Your task to perform on an android device: Open Chrome and go to the settings page Image 0: 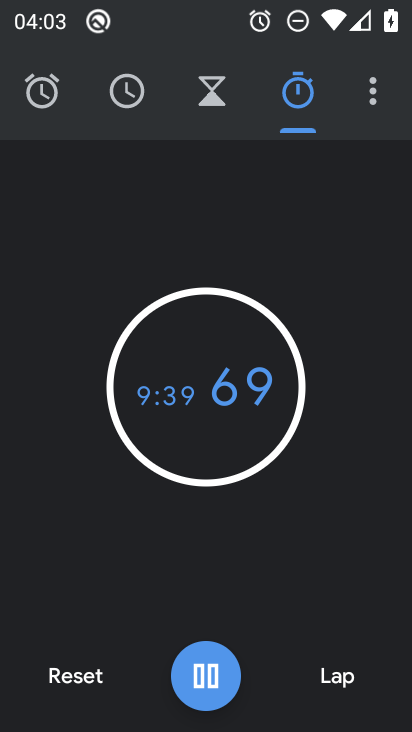
Step 0: press home button
Your task to perform on an android device: Open Chrome and go to the settings page Image 1: 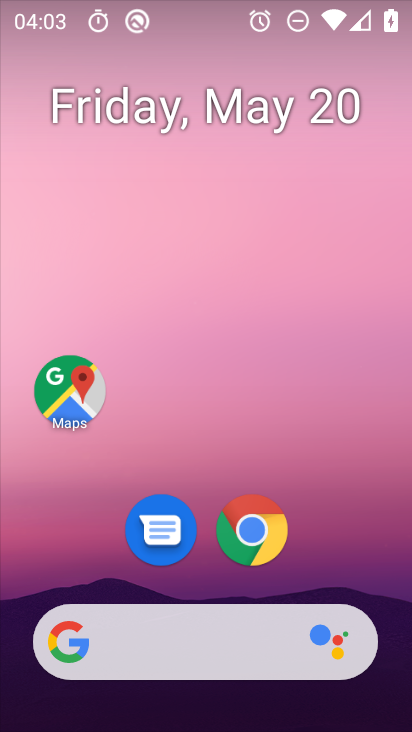
Step 1: click (392, 424)
Your task to perform on an android device: Open Chrome and go to the settings page Image 2: 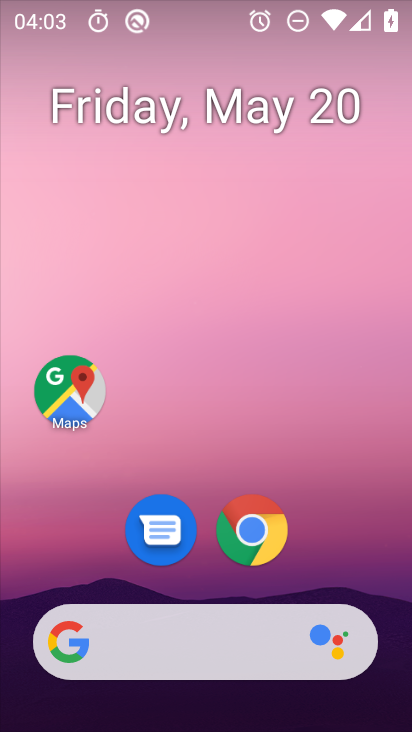
Step 2: click (222, 556)
Your task to perform on an android device: Open Chrome and go to the settings page Image 3: 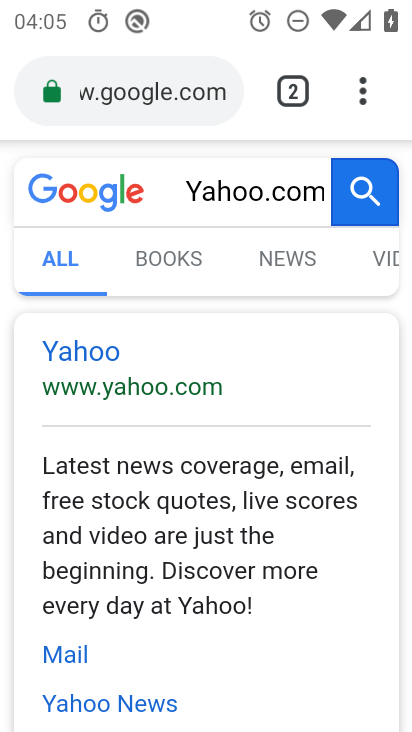
Step 3: click (362, 92)
Your task to perform on an android device: Open Chrome and go to the settings page Image 4: 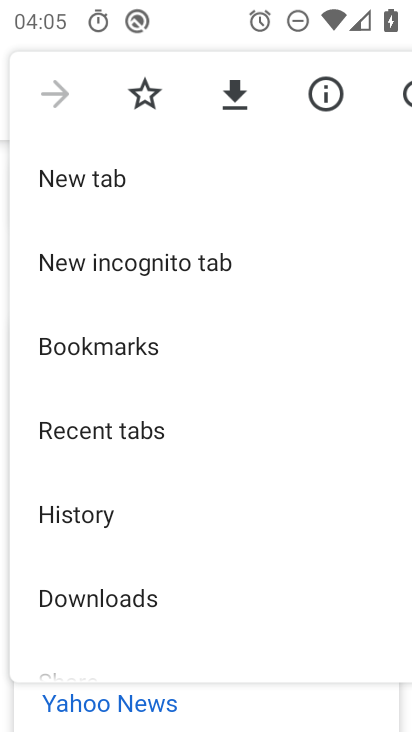
Step 4: drag from (204, 625) to (252, 319)
Your task to perform on an android device: Open Chrome and go to the settings page Image 5: 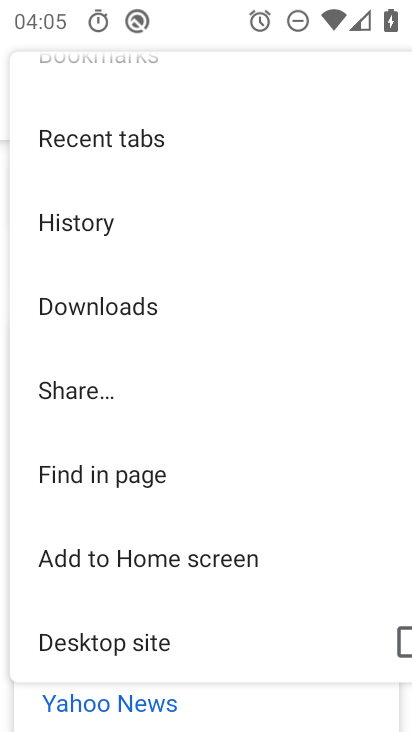
Step 5: drag from (262, 602) to (278, 371)
Your task to perform on an android device: Open Chrome and go to the settings page Image 6: 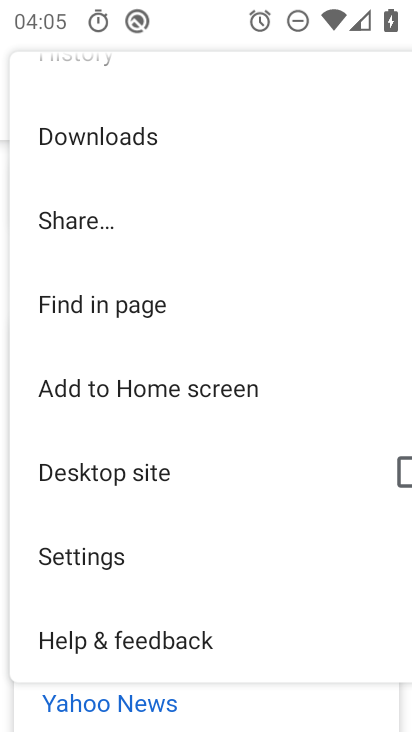
Step 6: click (97, 559)
Your task to perform on an android device: Open Chrome and go to the settings page Image 7: 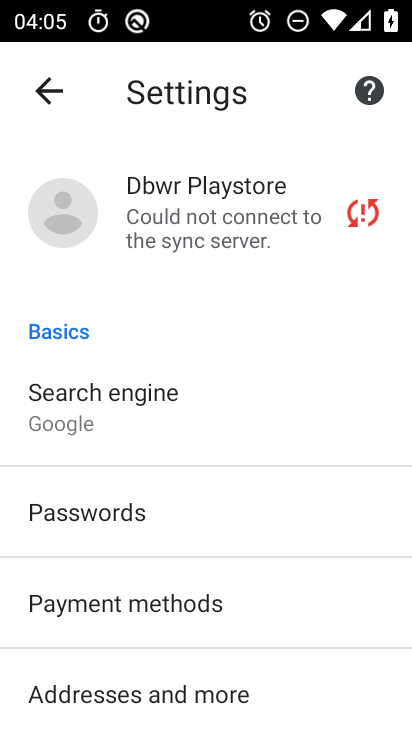
Step 7: task complete